Your task to perform on an android device: turn on sleep mode Image 0: 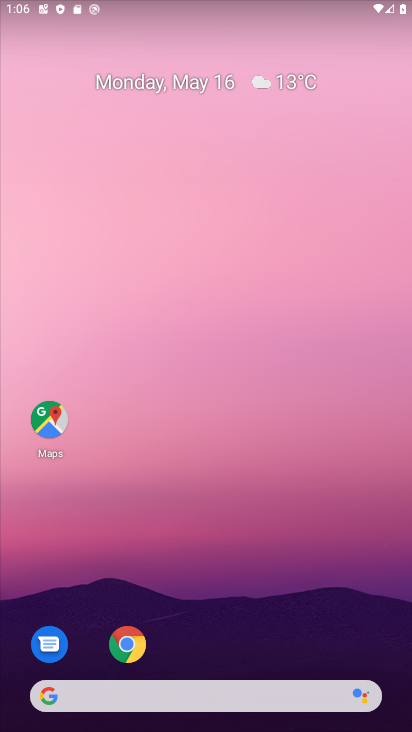
Step 0: drag from (284, 668) to (323, 241)
Your task to perform on an android device: turn on sleep mode Image 1: 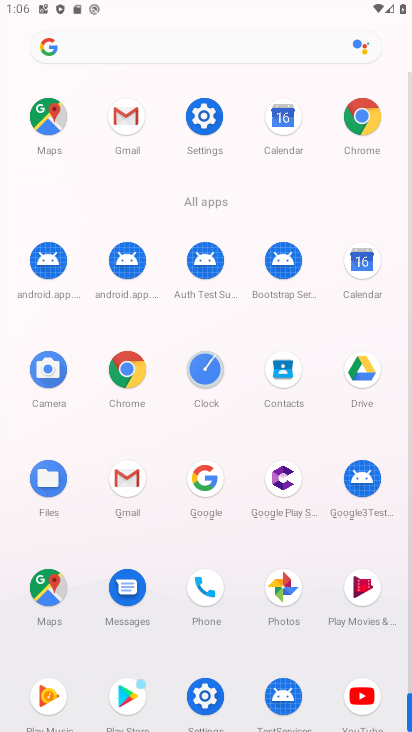
Step 1: click (201, 148)
Your task to perform on an android device: turn on sleep mode Image 2: 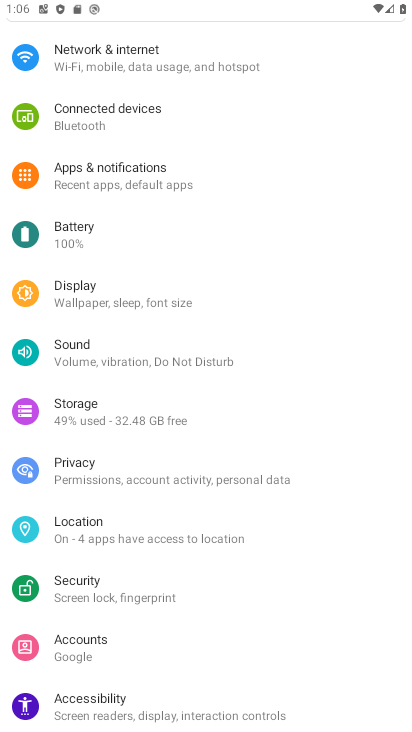
Step 2: click (110, 307)
Your task to perform on an android device: turn on sleep mode Image 3: 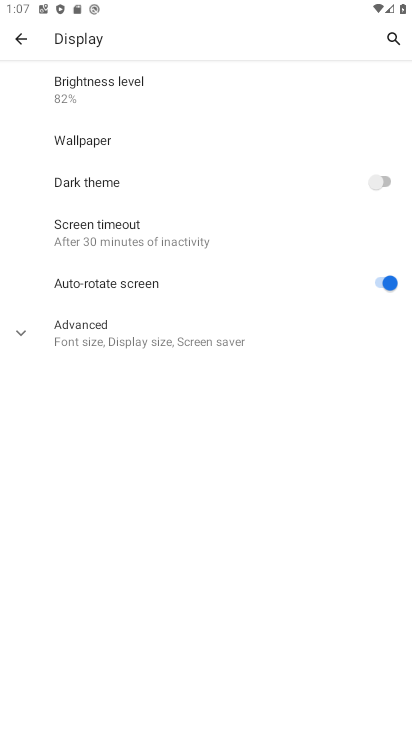
Step 3: click (125, 340)
Your task to perform on an android device: turn on sleep mode Image 4: 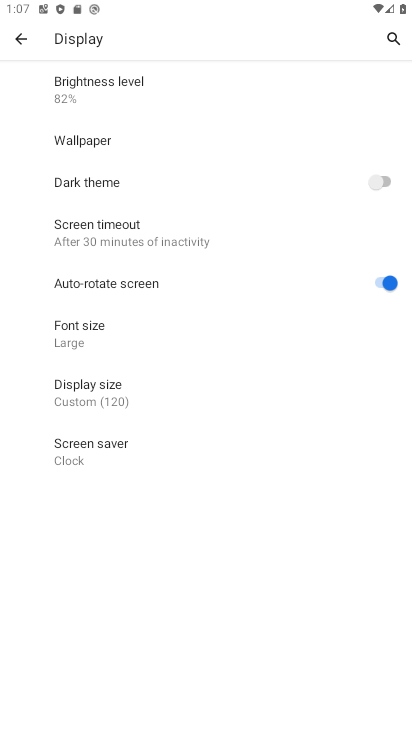
Step 4: task complete